Your task to perform on an android device: What's the weather going to be tomorrow? Image 0: 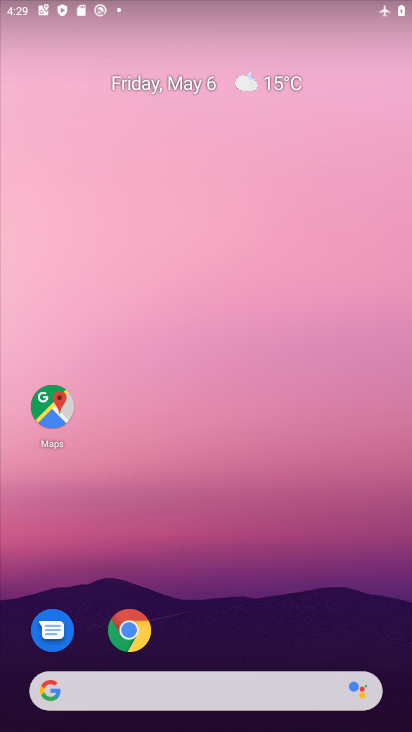
Step 0: click (199, 700)
Your task to perform on an android device: What's the weather going to be tomorrow? Image 1: 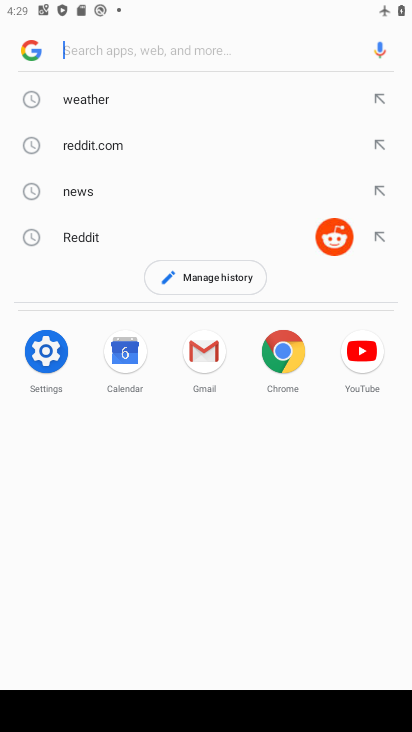
Step 1: click (81, 93)
Your task to perform on an android device: What's the weather going to be tomorrow? Image 2: 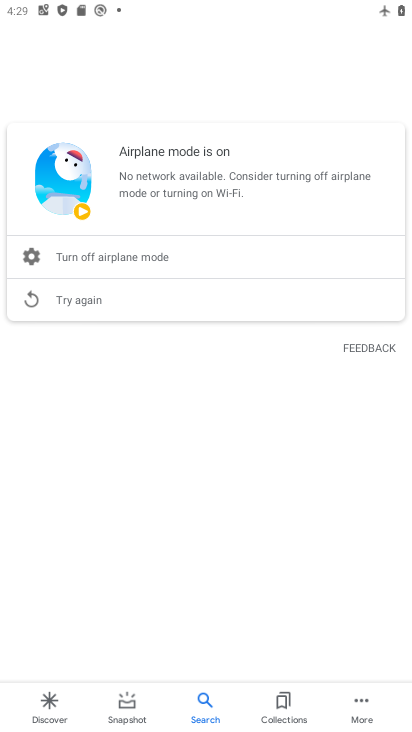
Step 2: drag from (353, 9) to (334, 532)
Your task to perform on an android device: What's the weather going to be tomorrow? Image 3: 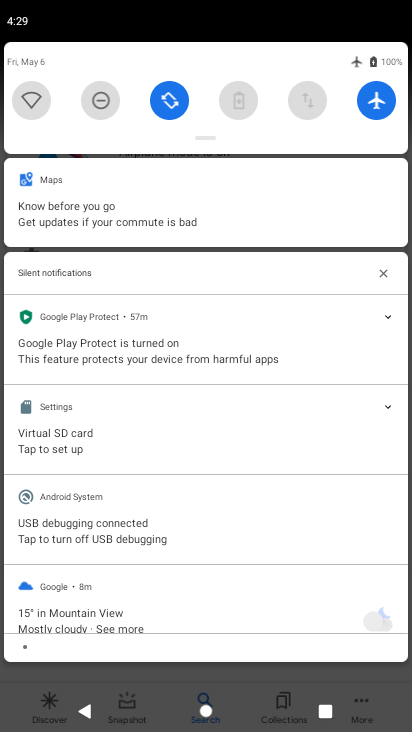
Step 3: click (374, 103)
Your task to perform on an android device: What's the weather going to be tomorrow? Image 4: 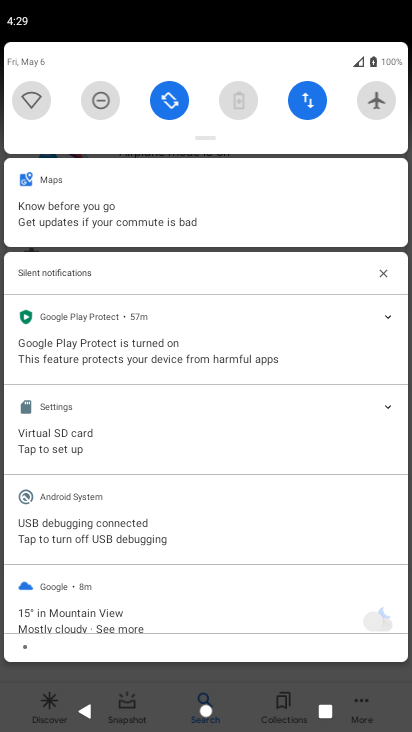
Step 4: click (170, 682)
Your task to perform on an android device: What's the weather going to be tomorrow? Image 5: 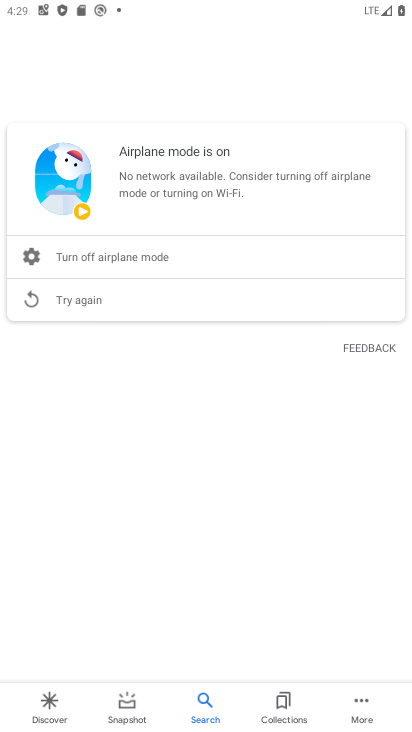
Step 5: click (89, 304)
Your task to perform on an android device: What's the weather going to be tomorrow? Image 6: 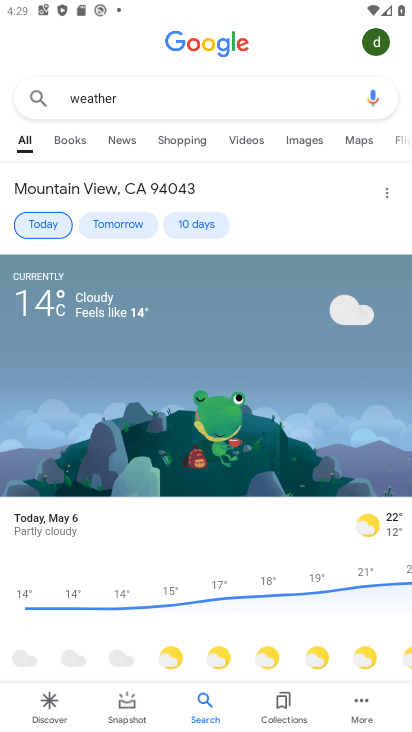
Step 6: click (126, 224)
Your task to perform on an android device: What's the weather going to be tomorrow? Image 7: 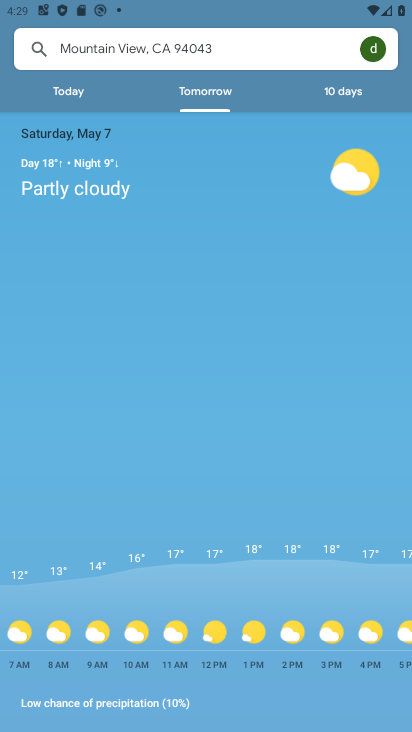
Step 7: task complete